Your task to perform on an android device: turn on the 24-hour format for clock Image 0: 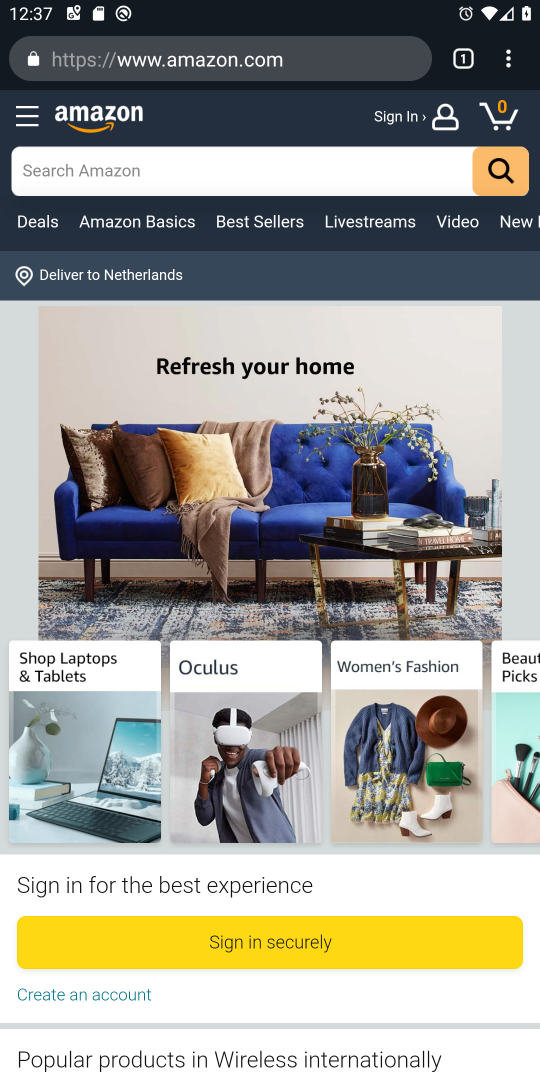
Step 0: press home button
Your task to perform on an android device: turn on the 24-hour format for clock Image 1: 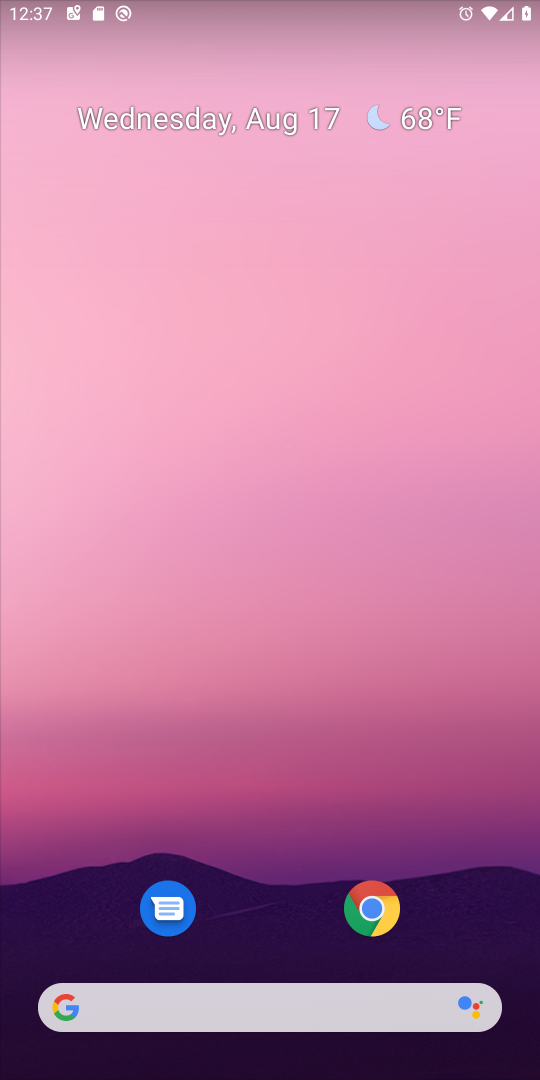
Step 1: drag from (268, 812) to (276, 473)
Your task to perform on an android device: turn on the 24-hour format for clock Image 2: 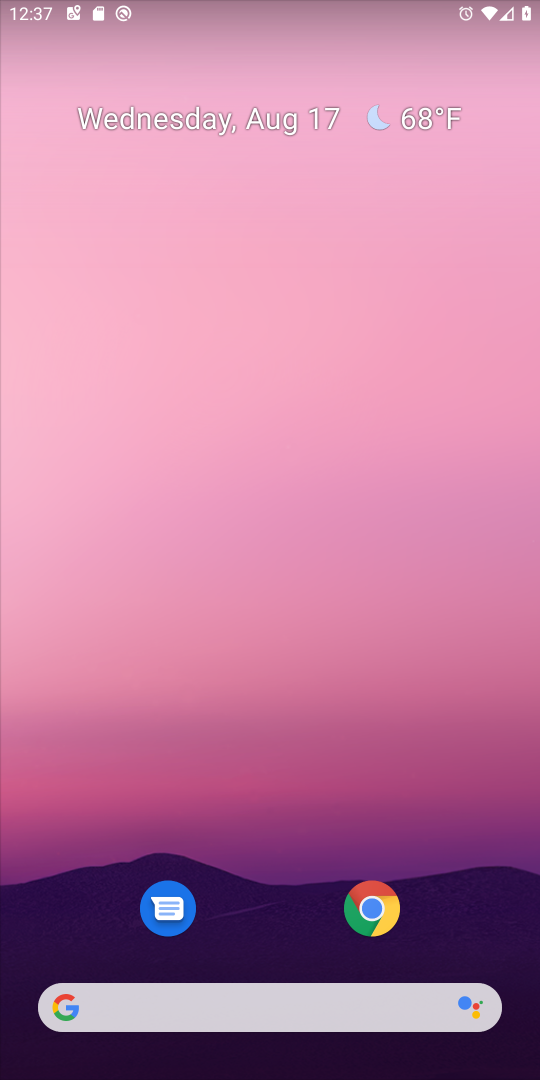
Step 2: drag from (269, 862) to (258, 278)
Your task to perform on an android device: turn on the 24-hour format for clock Image 3: 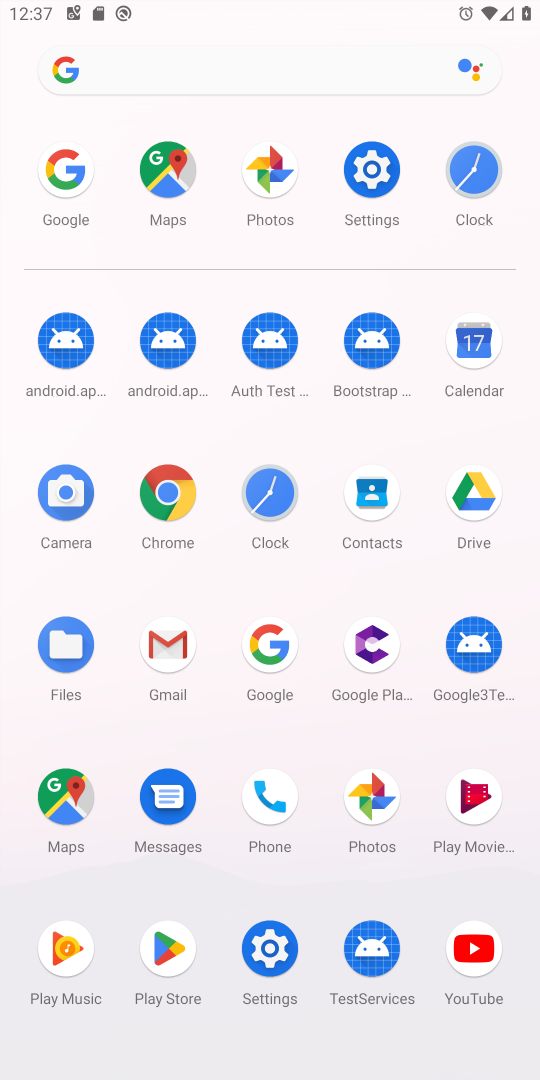
Step 3: click (466, 176)
Your task to perform on an android device: turn on the 24-hour format for clock Image 4: 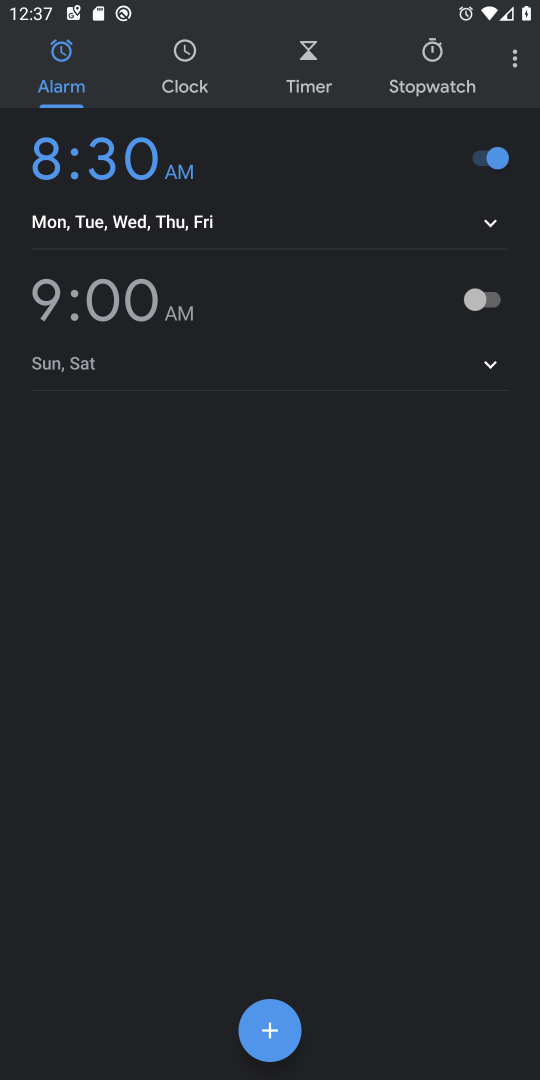
Step 4: click (512, 61)
Your task to perform on an android device: turn on the 24-hour format for clock Image 5: 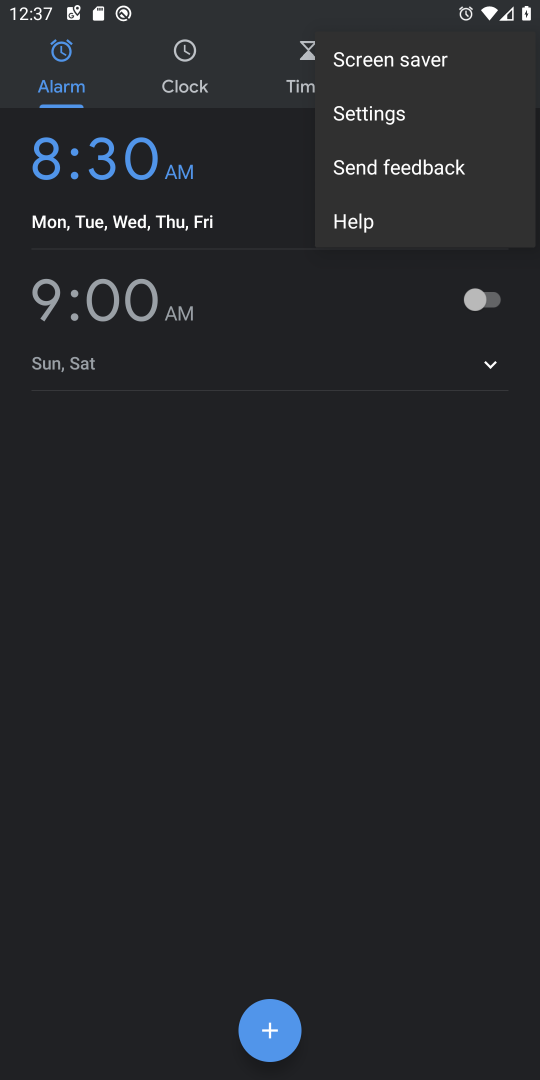
Step 5: click (450, 108)
Your task to perform on an android device: turn on the 24-hour format for clock Image 6: 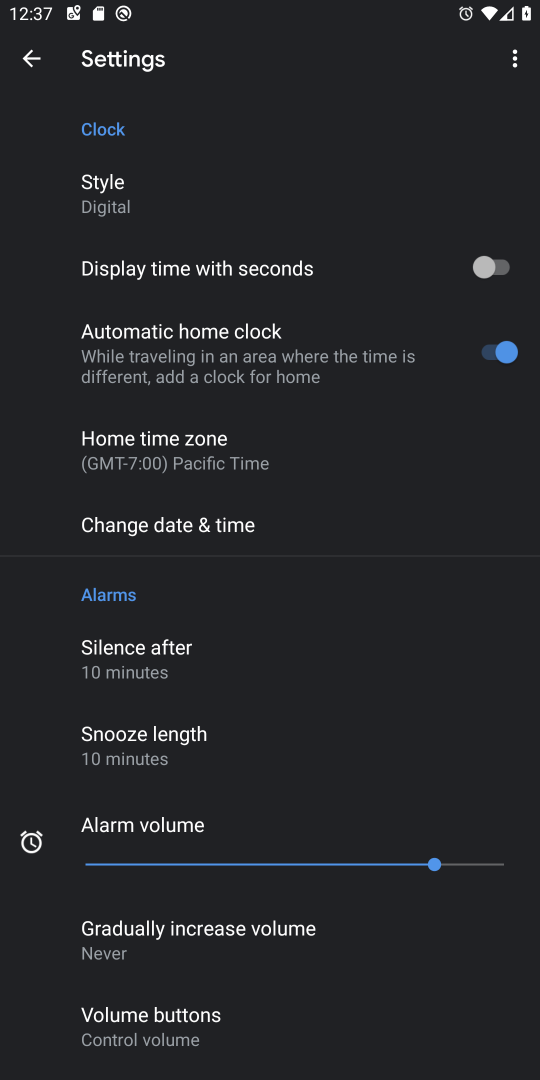
Step 6: click (225, 536)
Your task to perform on an android device: turn on the 24-hour format for clock Image 7: 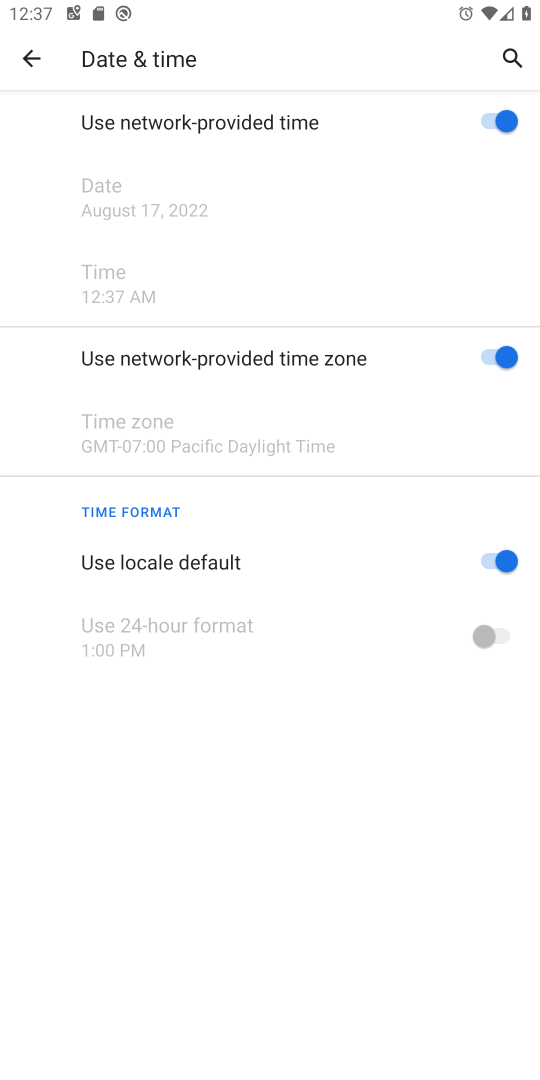
Step 7: click (489, 563)
Your task to perform on an android device: turn on the 24-hour format for clock Image 8: 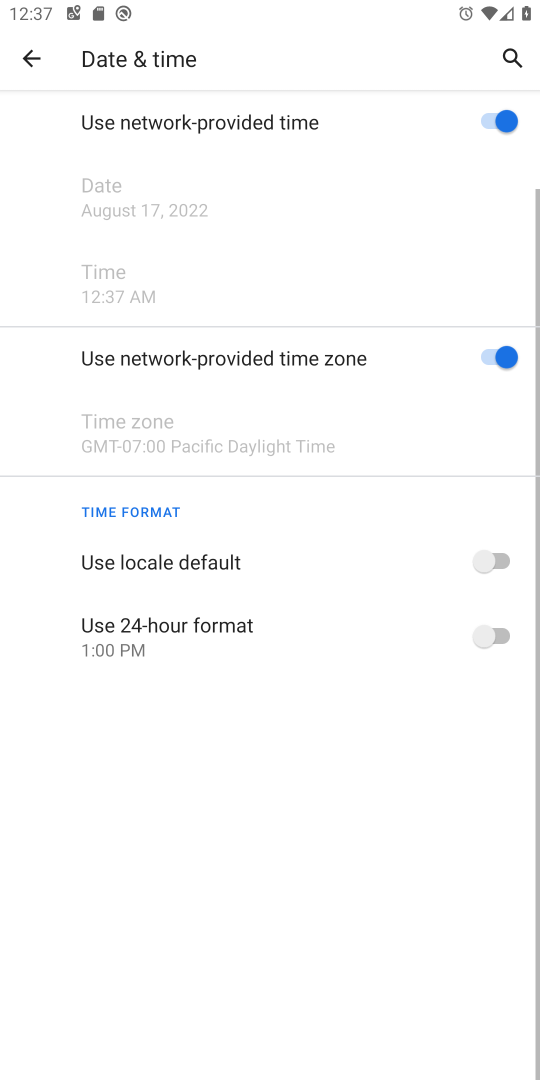
Step 8: click (493, 647)
Your task to perform on an android device: turn on the 24-hour format for clock Image 9: 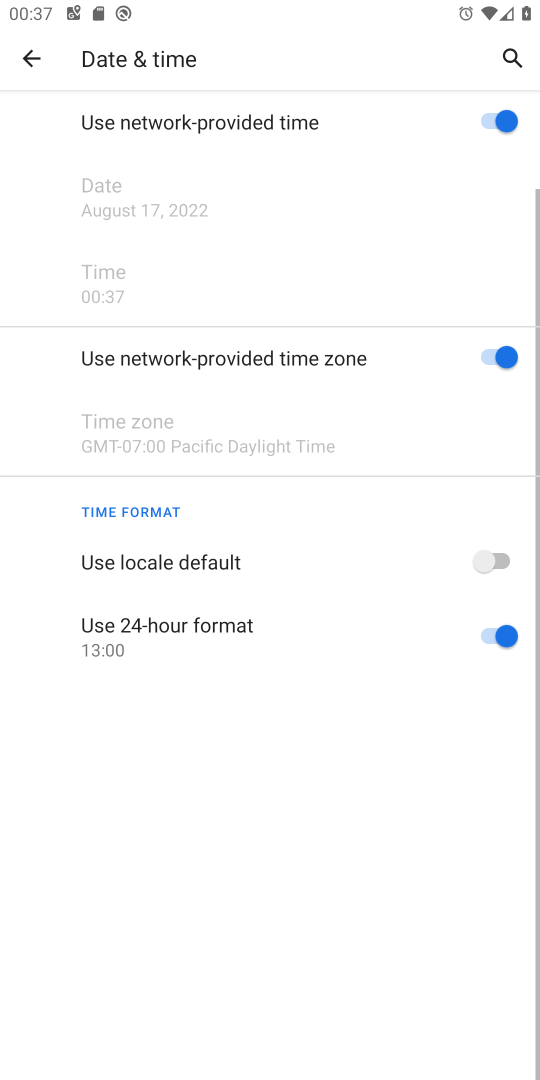
Step 9: task complete